Your task to perform on an android device: Open sound settings Image 0: 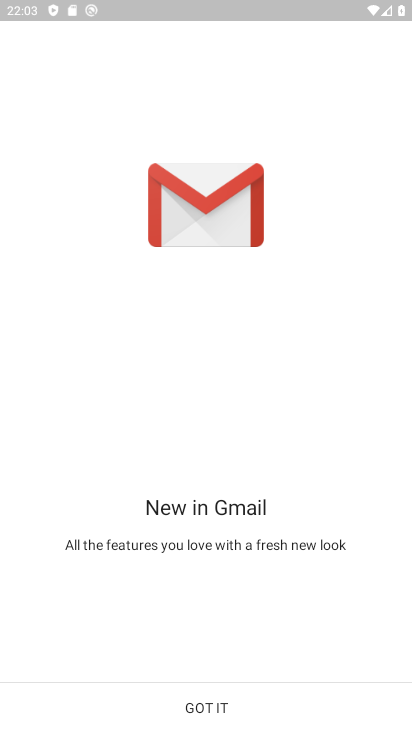
Step 0: press home button
Your task to perform on an android device: Open sound settings Image 1: 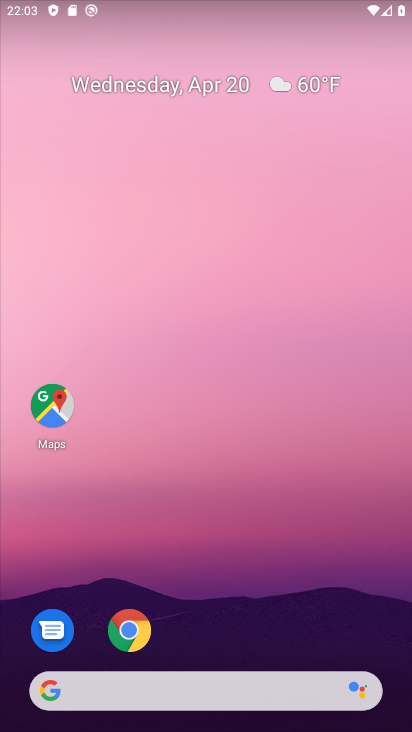
Step 1: drag from (245, 649) to (287, 40)
Your task to perform on an android device: Open sound settings Image 2: 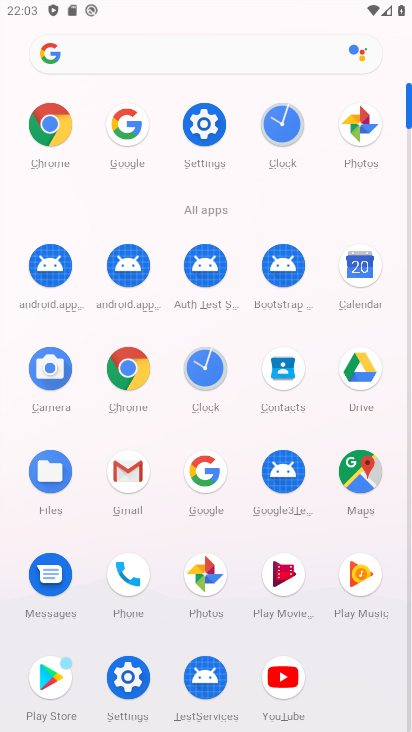
Step 2: click (113, 678)
Your task to perform on an android device: Open sound settings Image 3: 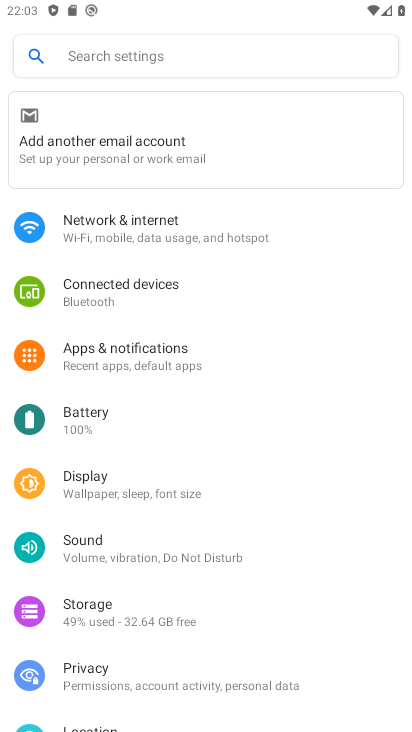
Step 3: click (177, 552)
Your task to perform on an android device: Open sound settings Image 4: 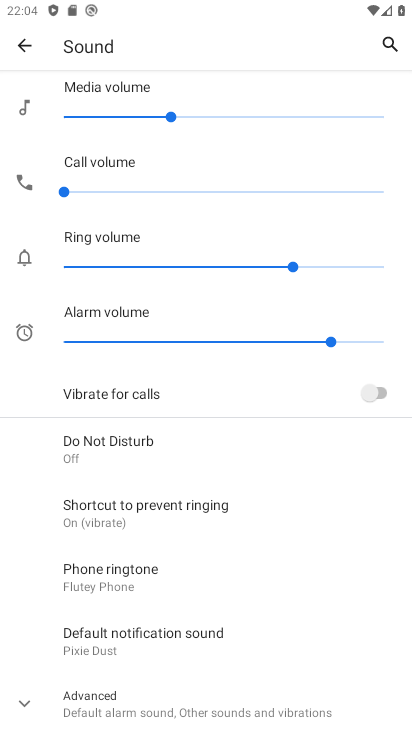
Step 4: task complete